Your task to perform on an android device: Show me popular videos on Youtube Image 0: 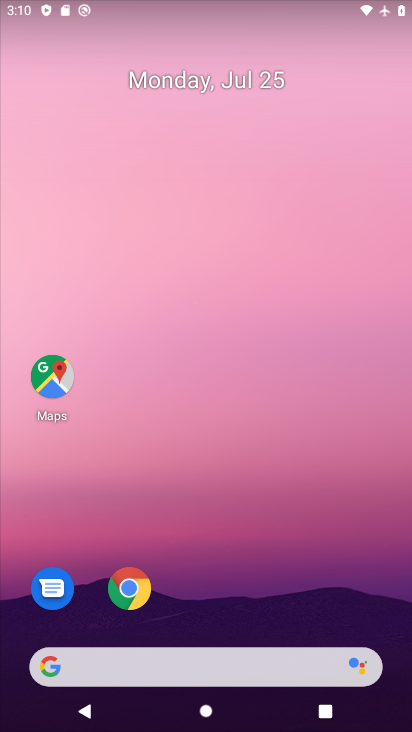
Step 0: press home button
Your task to perform on an android device: Show me popular videos on Youtube Image 1: 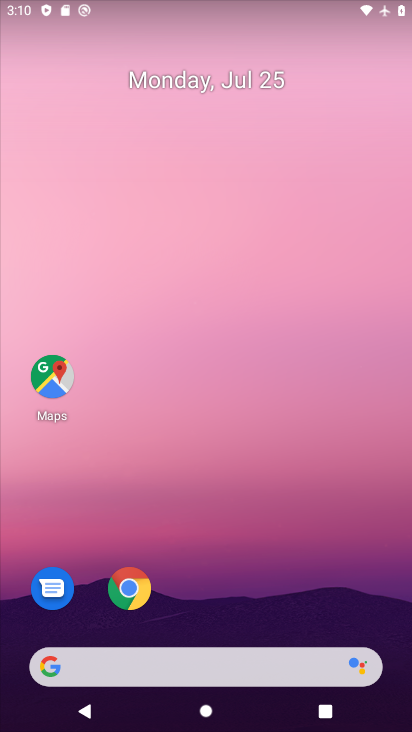
Step 1: drag from (226, 724) to (223, 69)
Your task to perform on an android device: Show me popular videos on Youtube Image 2: 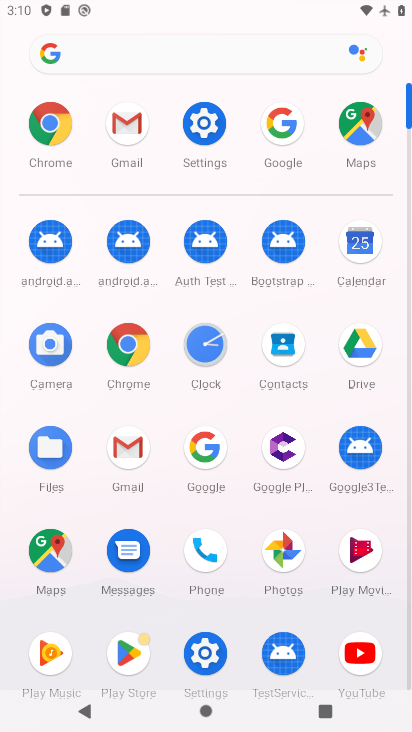
Step 2: click (360, 655)
Your task to perform on an android device: Show me popular videos on Youtube Image 3: 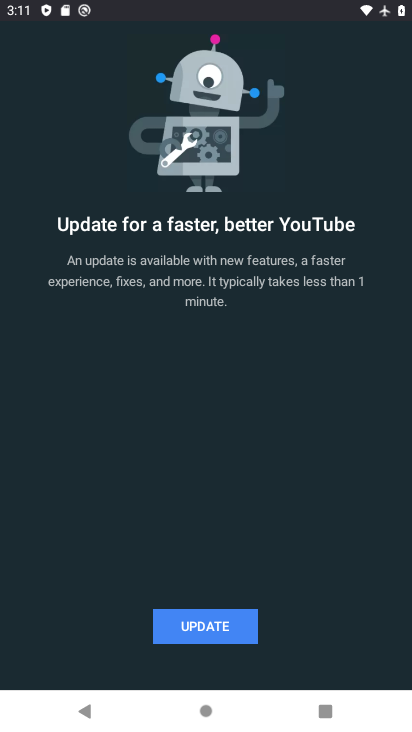
Step 3: task complete